Your task to perform on an android device: Clear all items from cart on bestbuy.com. Image 0: 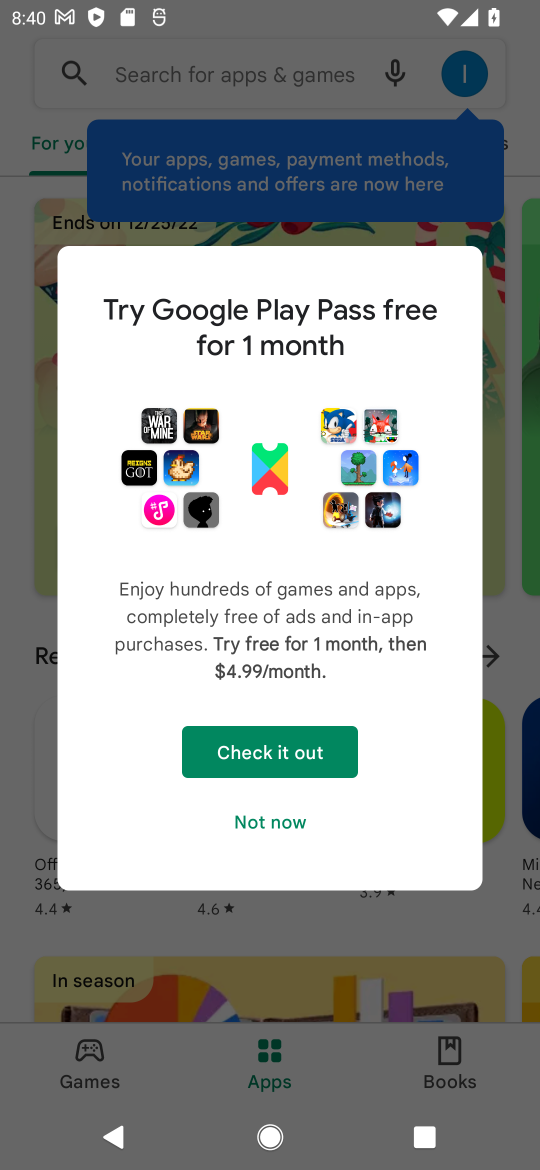
Step 0: press home button
Your task to perform on an android device: Clear all items from cart on bestbuy.com. Image 1: 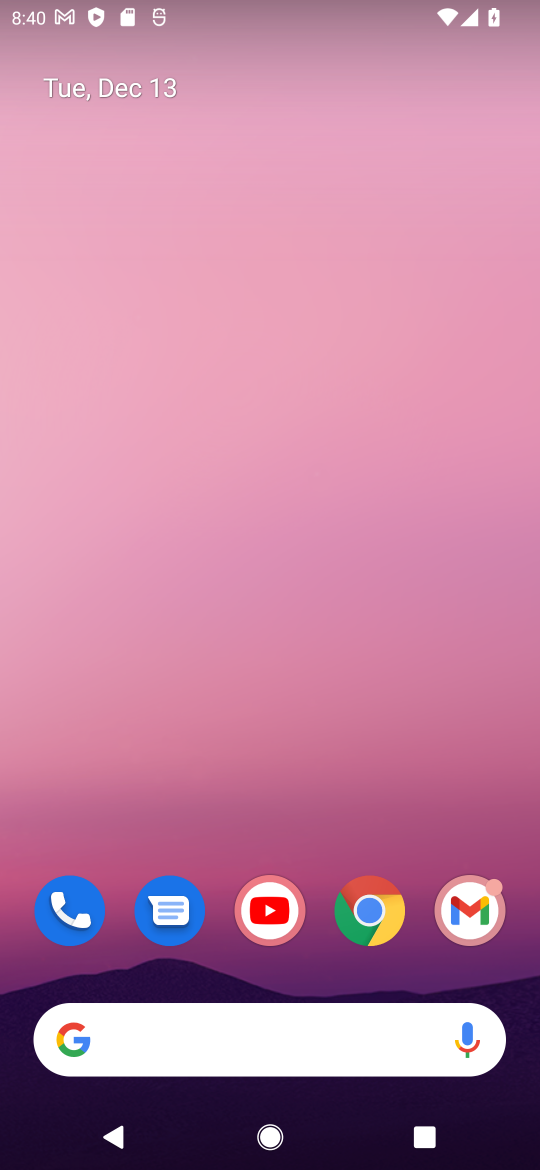
Step 1: drag from (168, 951) to (187, 269)
Your task to perform on an android device: Clear all items from cart on bestbuy.com. Image 2: 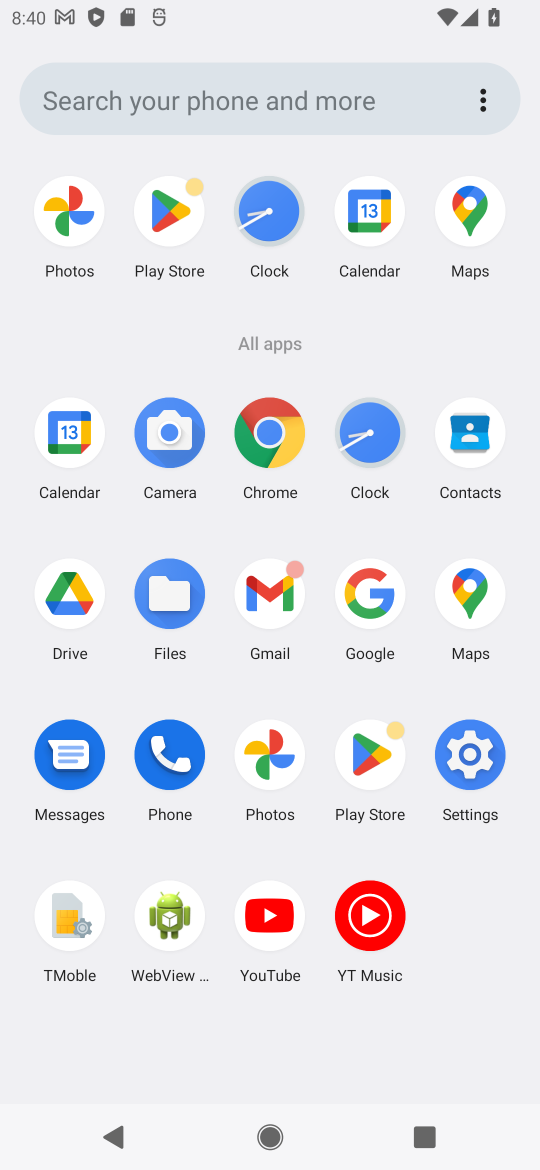
Step 2: click (386, 588)
Your task to perform on an android device: Clear all items from cart on bestbuy.com. Image 3: 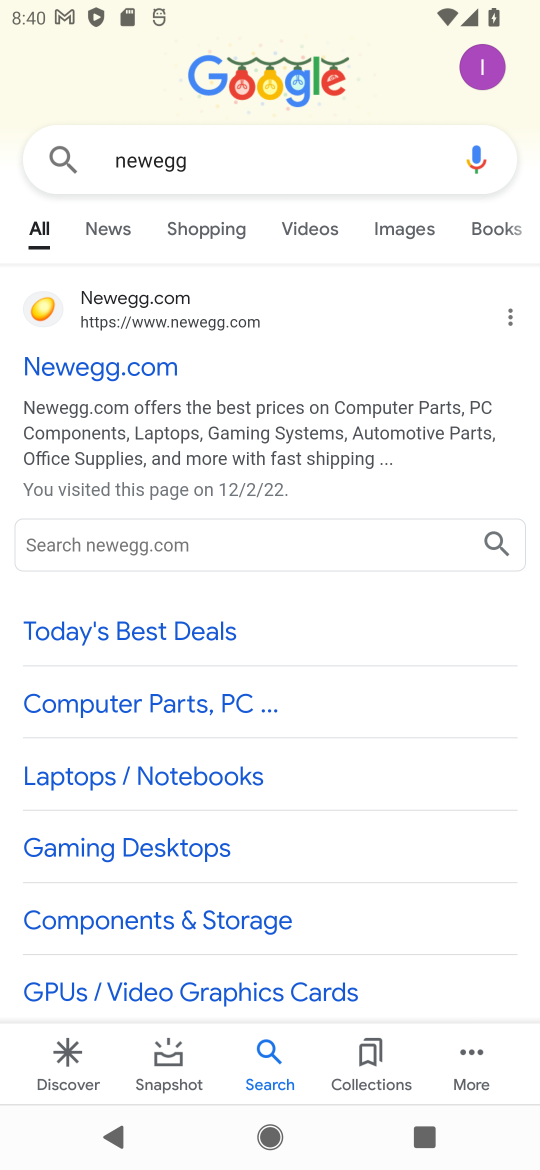
Step 3: click (191, 157)
Your task to perform on an android device: Clear all items from cart on bestbuy.com. Image 4: 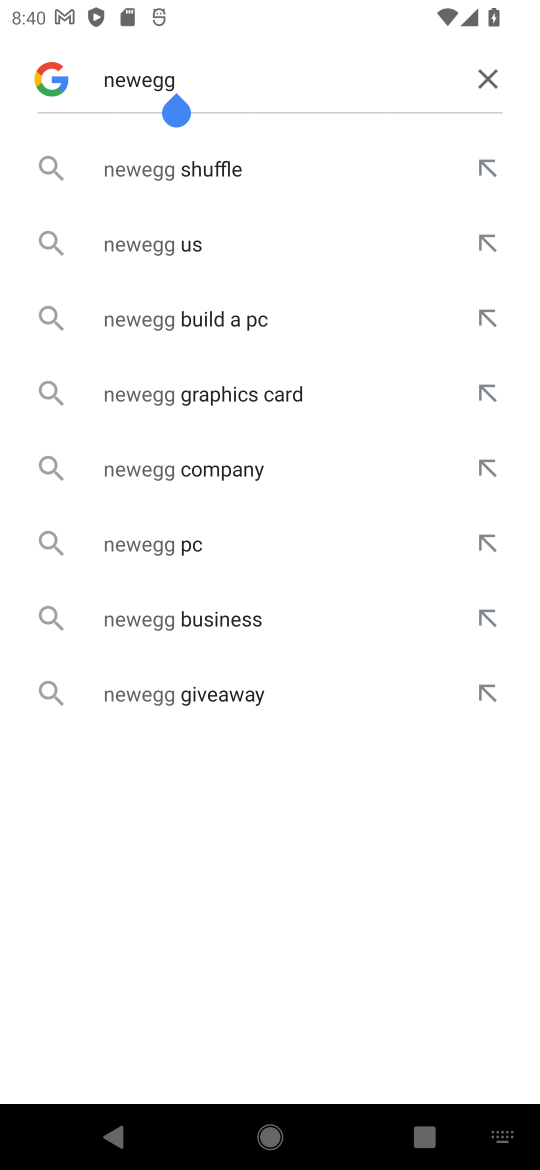
Step 4: click (483, 83)
Your task to perform on an android device: Clear all items from cart on bestbuy.com. Image 5: 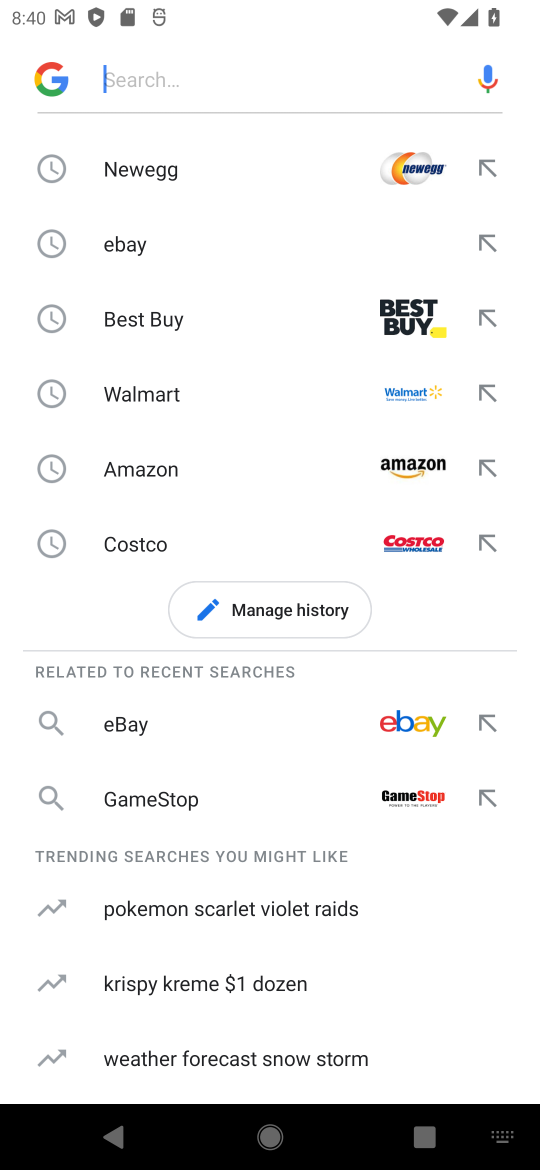
Step 5: click (147, 320)
Your task to perform on an android device: Clear all items from cart on bestbuy.com. Image 6: 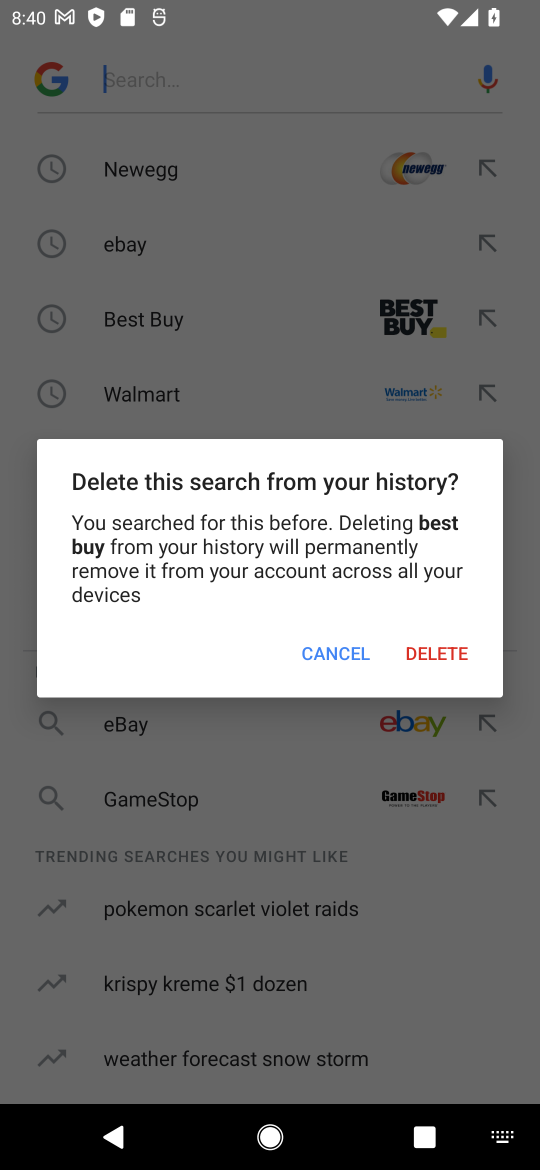
Step 6: click (326, 656)
Your task to perform on an android device: Clear all items from cart on bestbuy.com. Image 7: 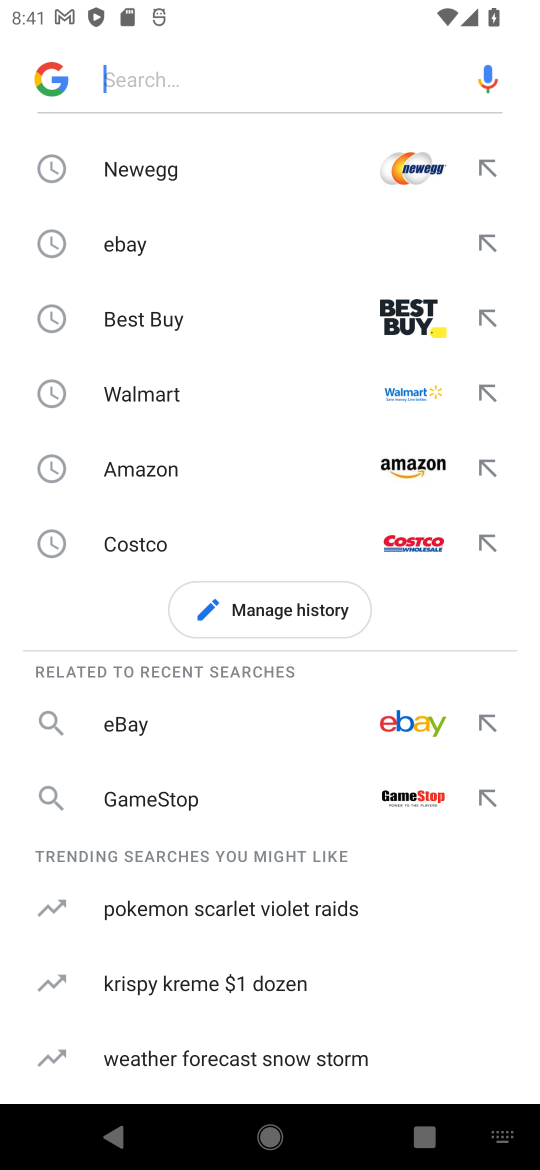
Step 7: click (404, 325)
Your task to perform on an android device: Clear all items from cart on bestbuy.com. Image 8: 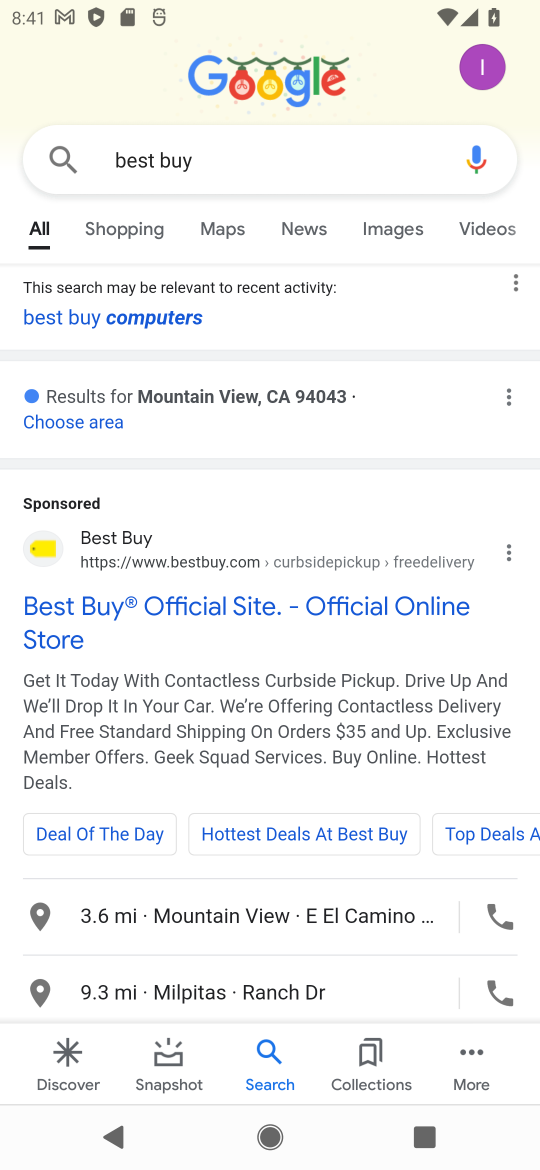
Step 8: click (150, 610)
Your task to perform on an android device: Clear all items from cart on bestbuy.com. Image 9: 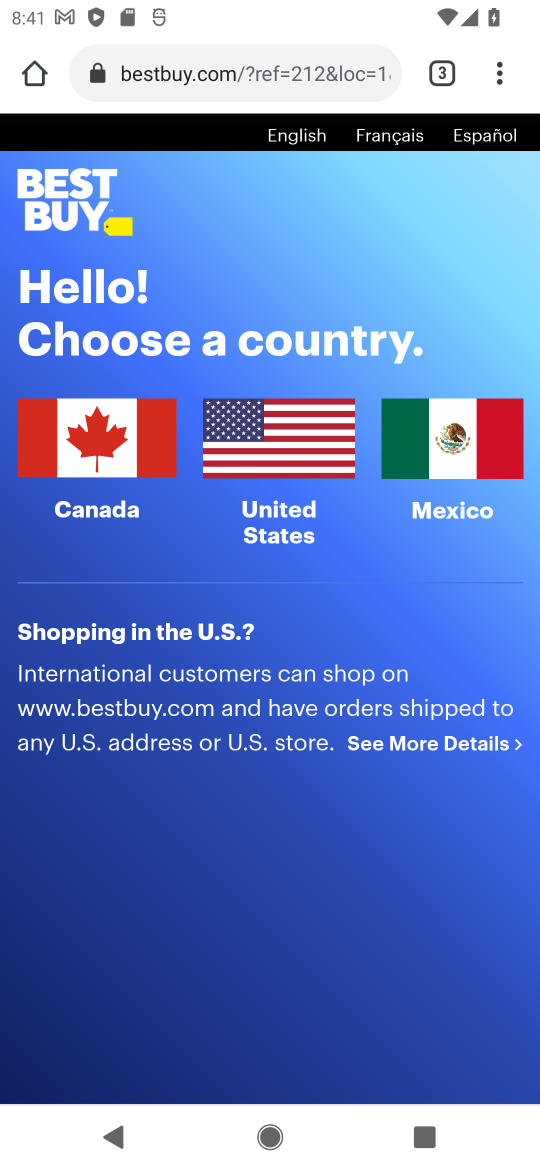
Step 9: click (301, 452)
Your task to perform on an android device: Clear all items from cart on bestbuy.com. Image 10: 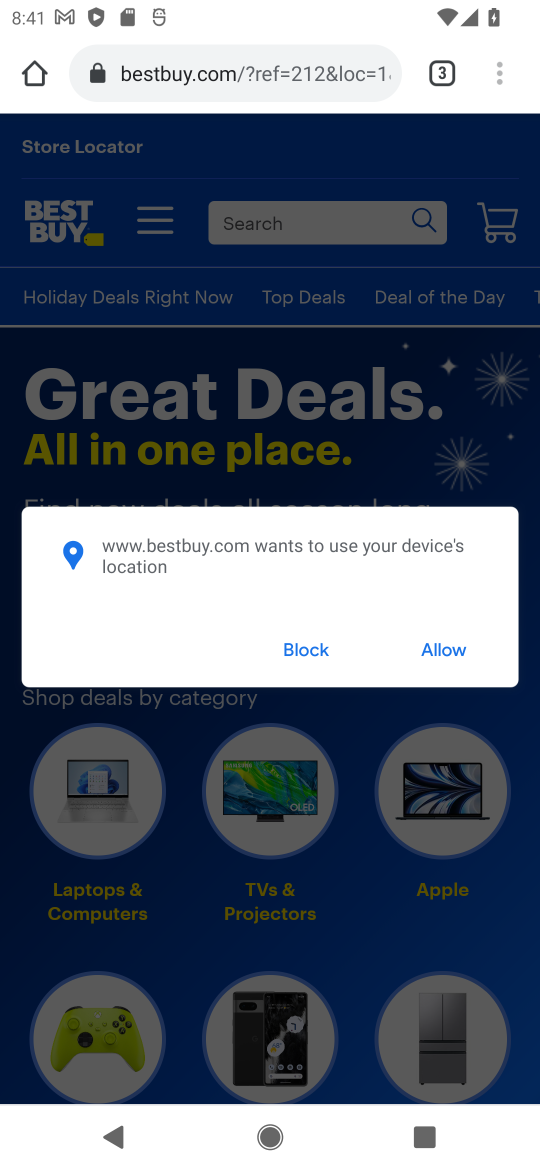
Step 10: click (509, 221)
Your task to perform on an android device: Clear all items from cart on bestbuy.com. Image 11: 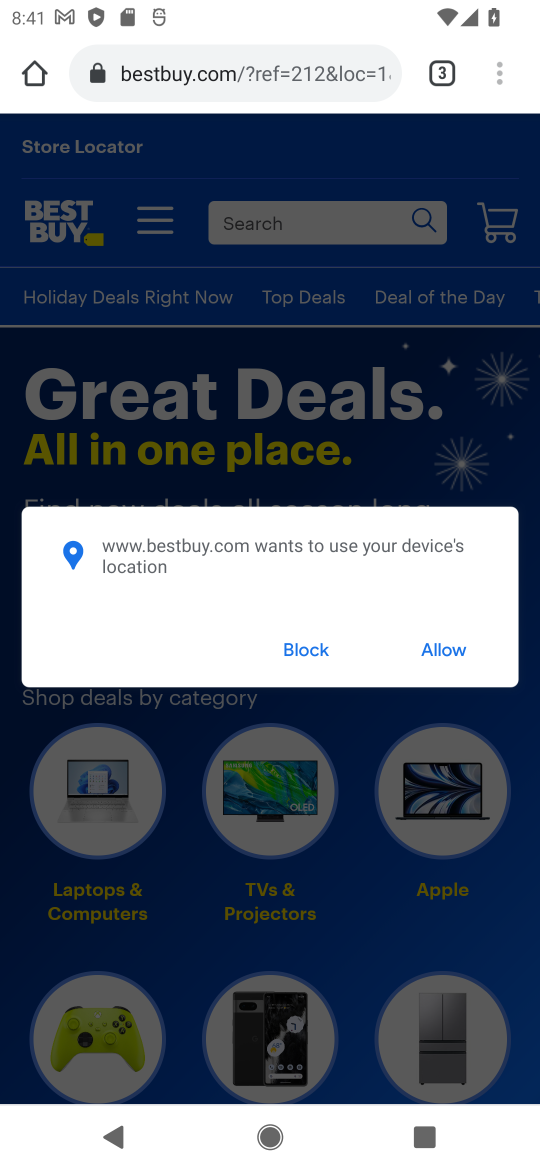
Step 11: click (318, 657)
Your task to perform on an android device: Clear all items from cart on bestbuy.com. Image 12: 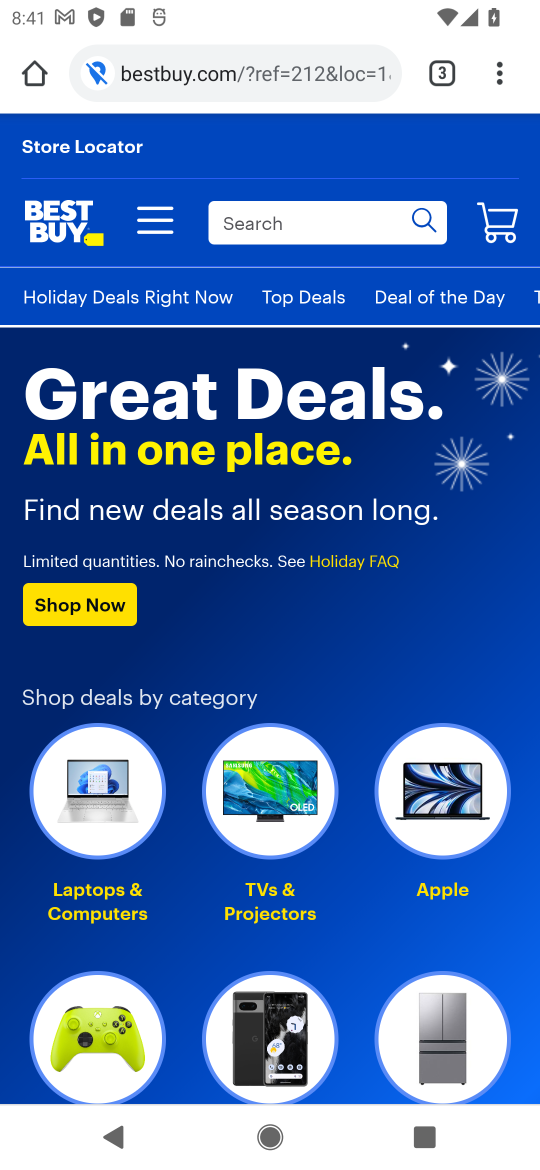
Step 12: task complete